Your task to perform on an android device: turn on notifications settings in the gmail app Image 0: 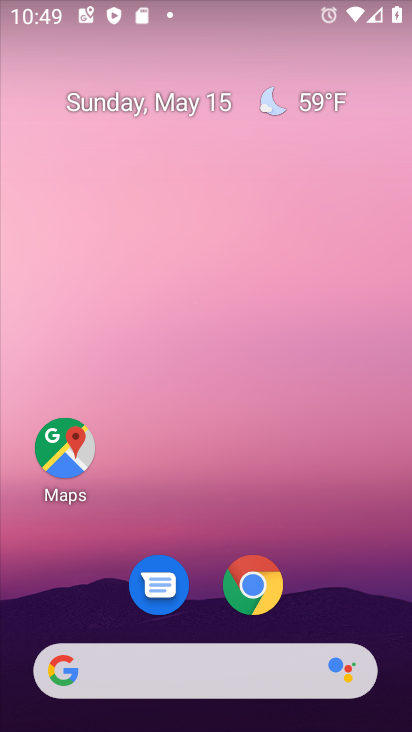
Step 0: drag from (223, 481) to (222, 31)
Your task to perform on an android device: turn on notifications settings in the gmail app Image 1: 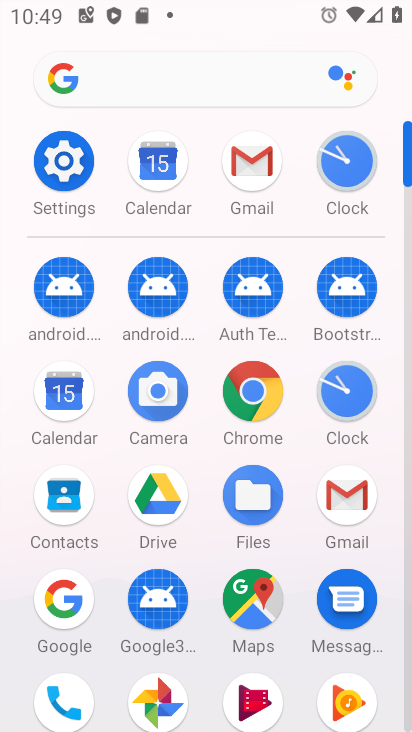
Step 1: click (255, 152)
Your task to perform on an android device: turn on notifications settings in the gmail app Image 2: 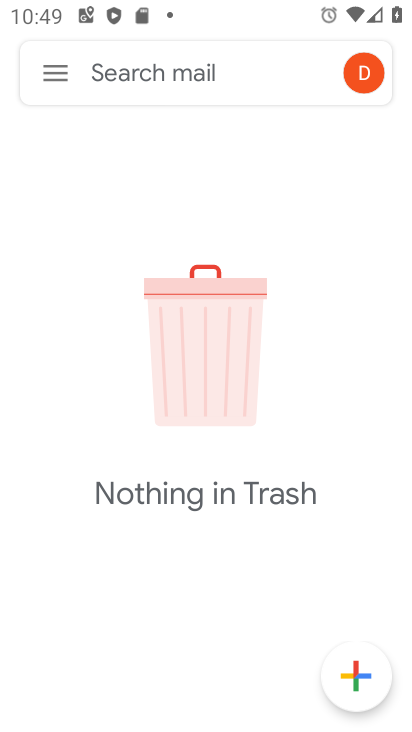
Step 2: click (55, 71)
Your task to perform on an android device: turn on notifications settings in the gmail app Image 3: 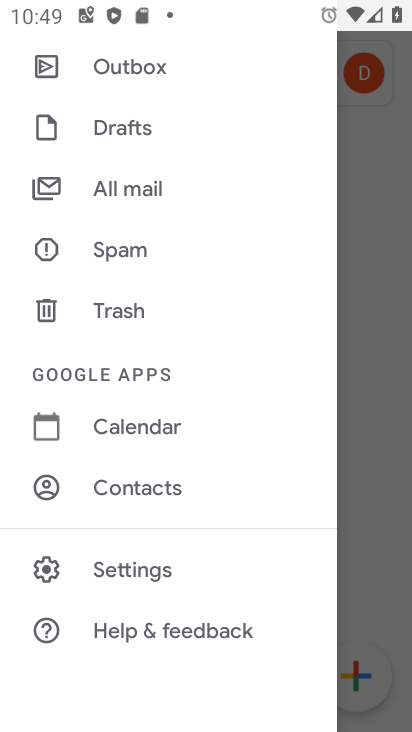
Step 3: click (133, 565)
Your task to perform on an android device: turn on notifications settings in the gmail app Image 4: 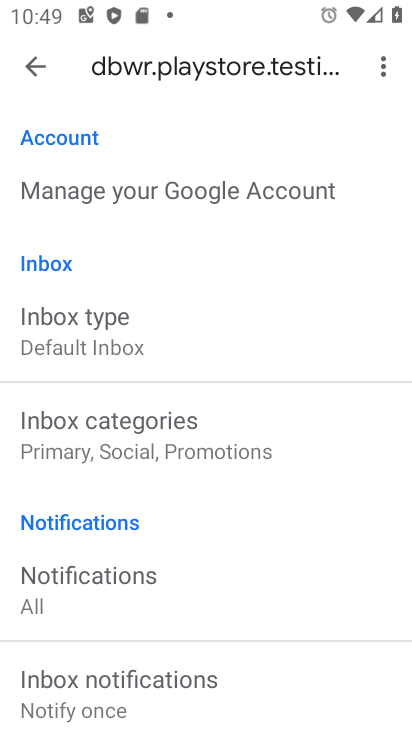
Step 4: drag from (240, 524) to (263, 107)
Your task to perform on an android device: turn on notifications settings in the gmail app Image 5: 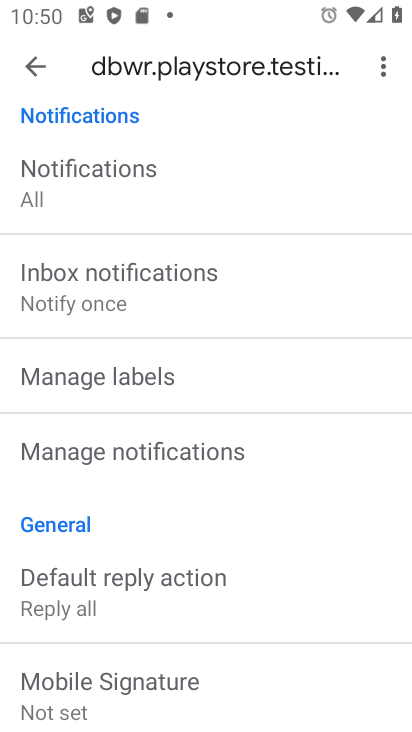
Step 5: click (173, 455)
Your task to perform on an android device: turn on notifications settings in the gmail app Image 6: 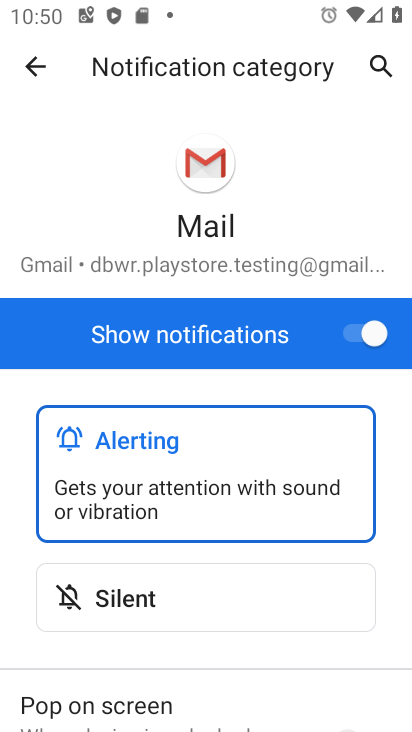
Step 6: task complete